Your task to perform on an android device: clear all cookies in the chrome app Image 0: 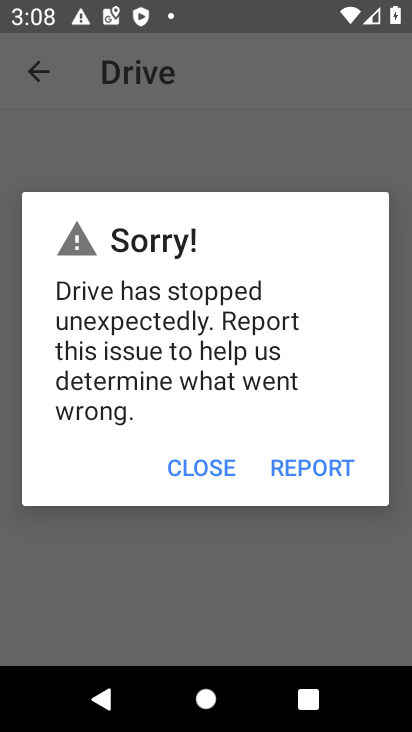
Step 0: press home button
Your task to perform on an android device: clear all cookies in the chrome app Image 1: 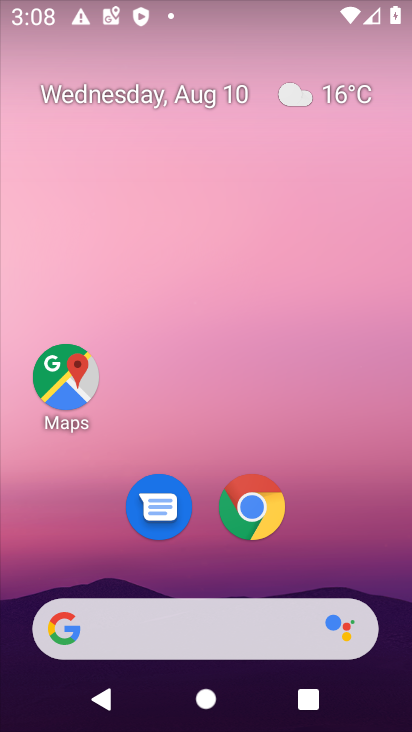
Step 1: drag from (348, 547) to (265, 29)
Your task to perform on an android device: clear all cookies in the chrome app Image 2: 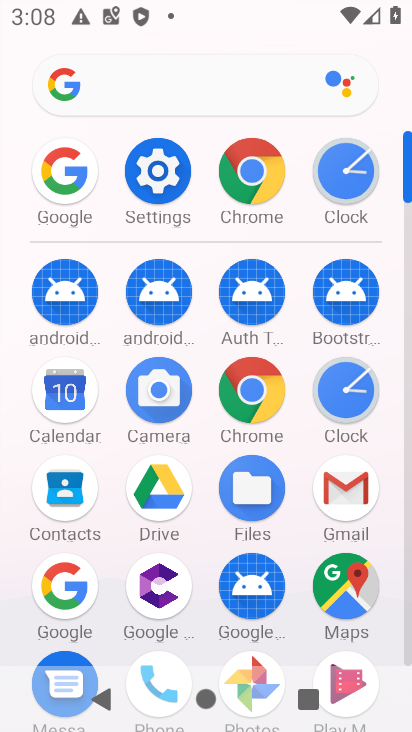
Step 2: click (247, 397)
Your task to perform on an android device: clear all cookies in the chrome app Image 3: 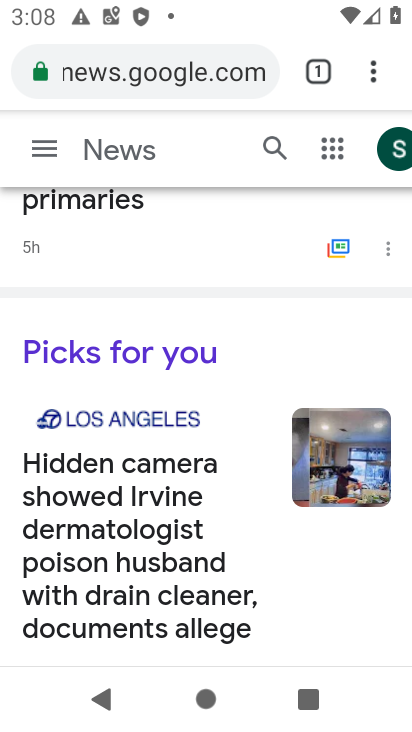
Step 3: drag from (377, 57) to (139, 360)
Your task to perform on an android device: clear all cookies in the chrome app Image 4: 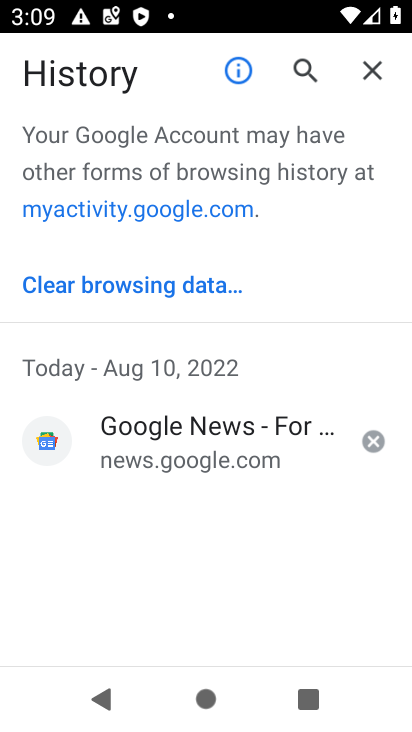
Step 4: click (145, 277)
Your task to perform on an android device: clear all cookies in the chrome app Image 5: 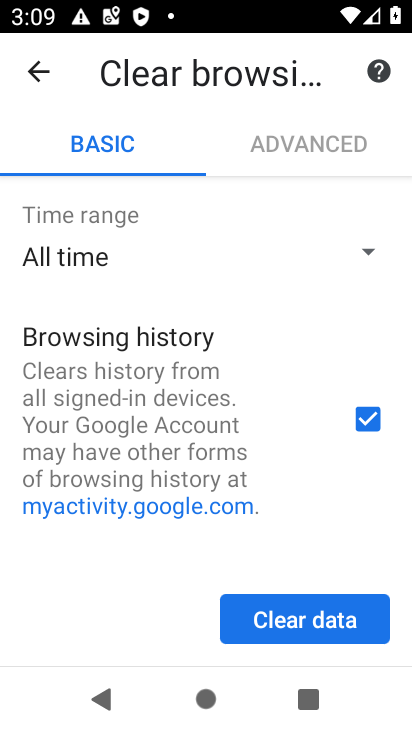
Step 5: drag from (214, 478) to (238, 122)
Your task to perform on an android device: clear all cookies in the chrome app Image 6: 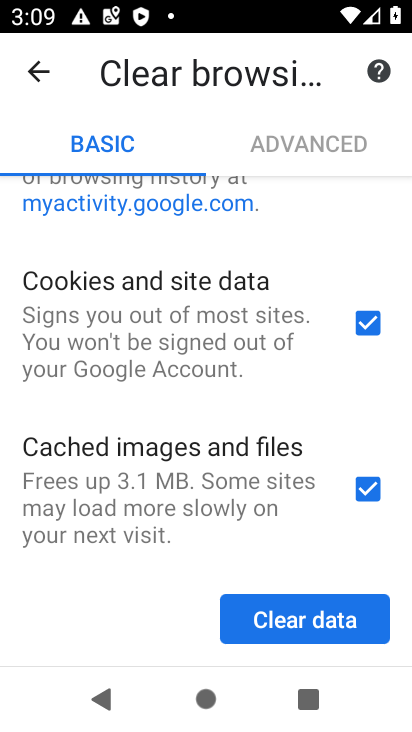
Step 6: click (305, 614)
Your task to perform on an android device: clear all cookies in the chrome app Image 7: 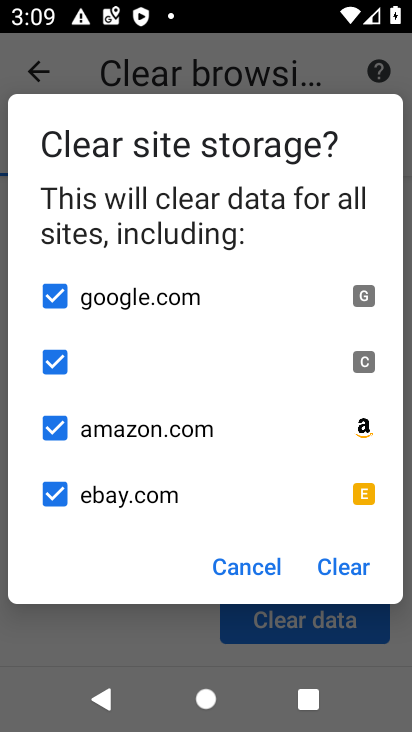
Step 7: click (341, 571)
Your task to perform on an android device: clear all cookies in the chrome app Image 8: 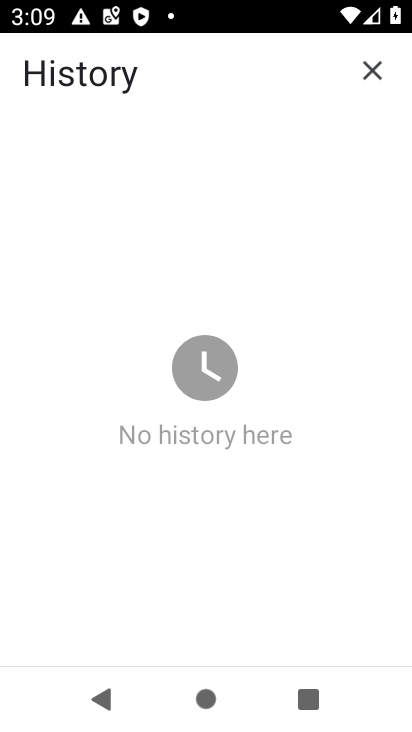
Step 8: task complete